Your task to perform on an android device: turn off translation in the chrome app Image 0: 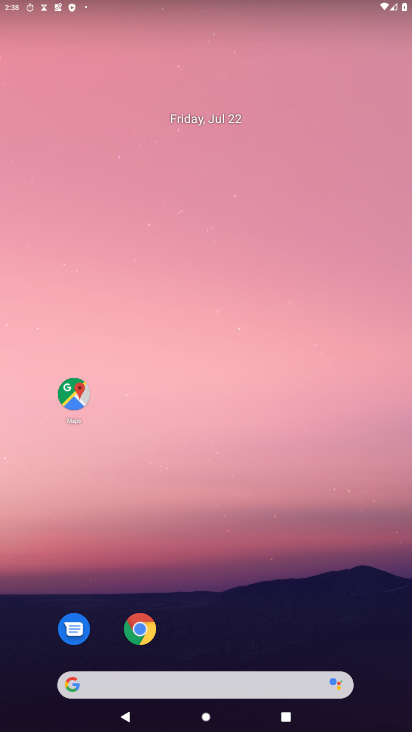
Step 0: drag from (297, 618) to (308, 247)
Your task to perform on an android device: turn off translation in the chrome app Image 1: 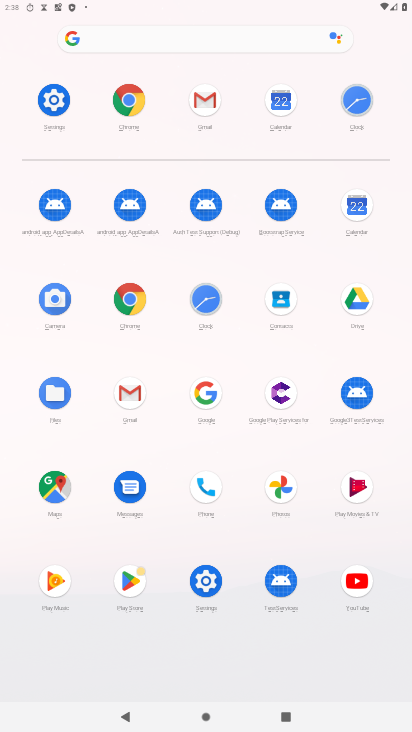
Step 1: click (124, 297)
Your task to perform on an android device: turn off translation in the chrome app Image 2: 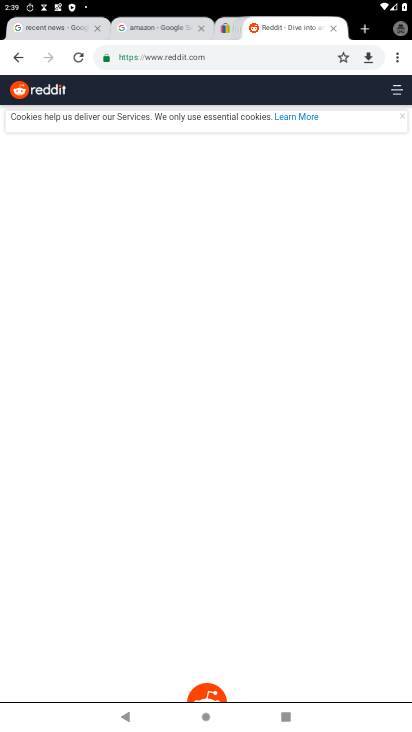
Step 2: drag from (398, 50) to (291, 379)
Your task to perform on an android device: turn off translation in the chrome app Image 3: 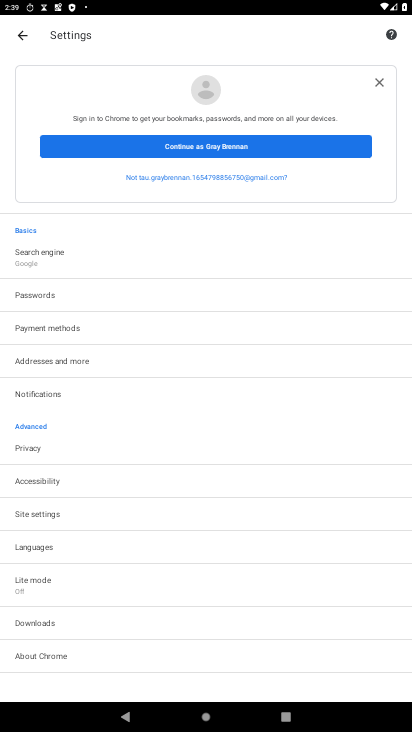
Step 3: click (48, 556)
Your task to perform on an android device: turn off translation in the chrome app Image 4: 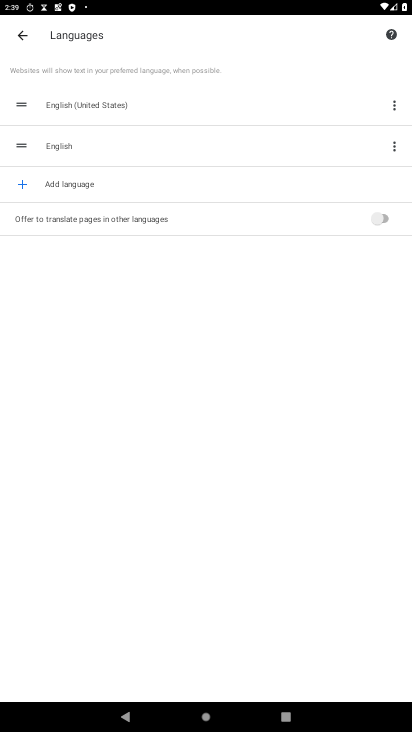
Step 4: task complete